Your task to perform on an android device: toggle improve location accuracy Image 0: 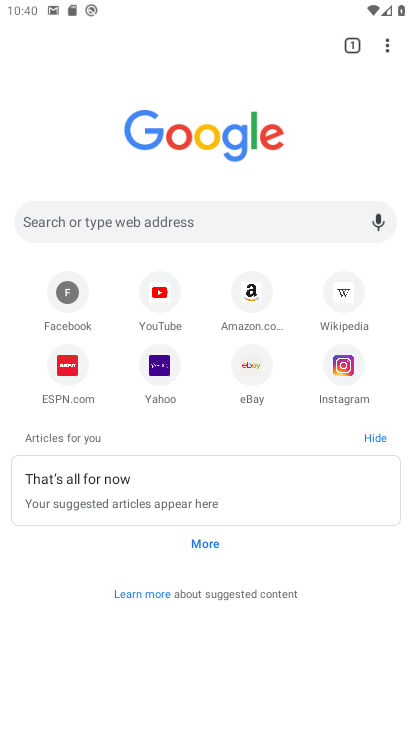
Step 0: press home button
Your task to perform on an android device: toggle improve location accuracy Image 1: 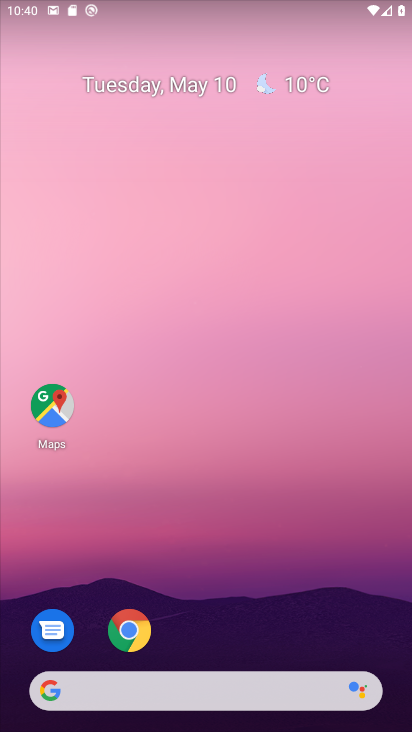
Step 1: drag from (236, 591) to (268, 112)
Your task to perform on an android device: toggle improve location accuracy Image 2: 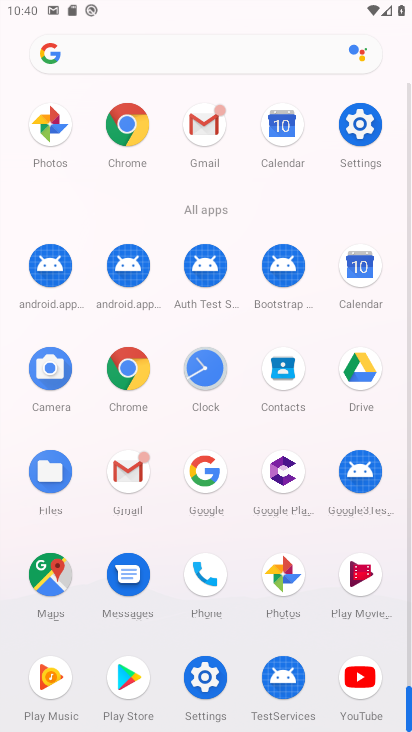
Step 2: click (362, 129)
Your task to perform on an android device: toggle improve location accuracy Image 3: 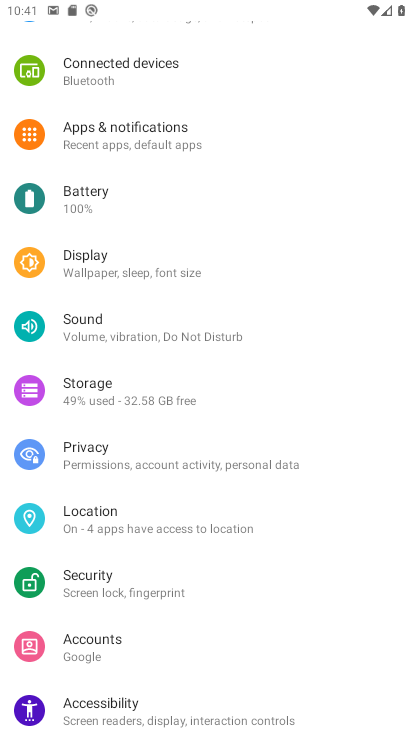
Step 3: click (135, 529)
Your task to perform on an android device: toggle improve location accuracy Image 4: 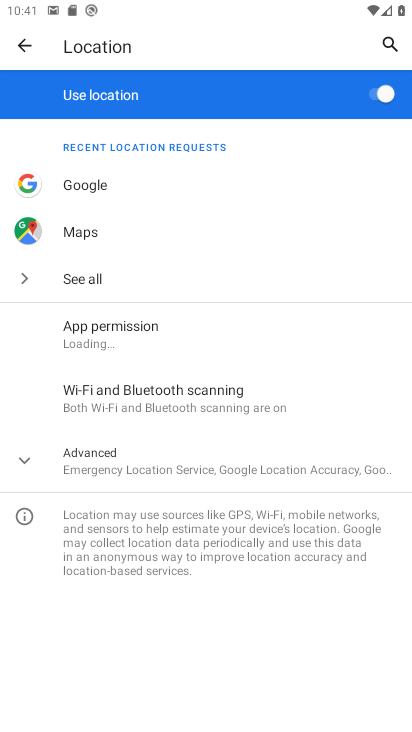
Step 4: click (139, 460)
Your task to perform on an android device: toggle improve location accuracy Image 5: 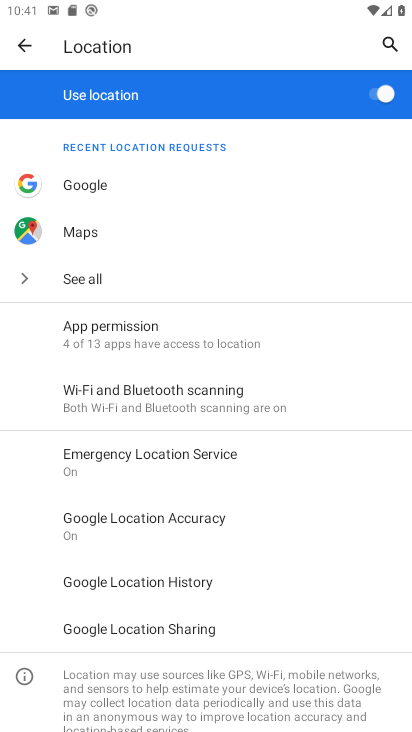
Step 5: click (182, 516)
Your task to perform on an android device: toggle improve location accuracy Image 6: 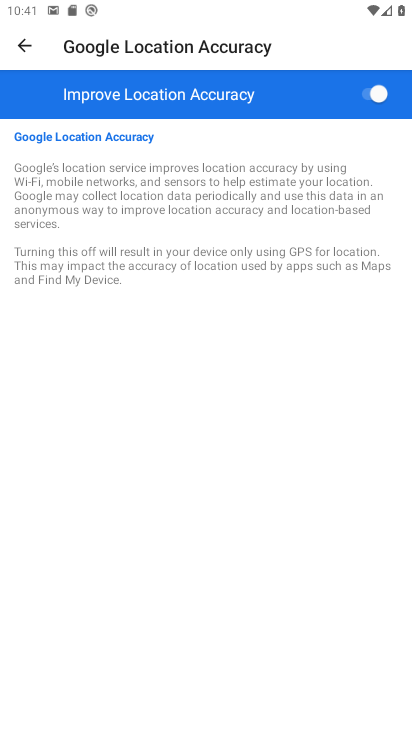
Step 6: click (371, 88)
Your task to perform on an android device: toggle improve location accuracy Image 7: 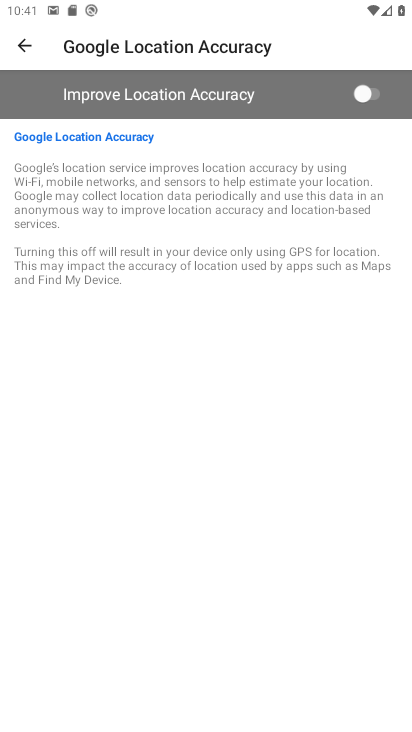
Step 7: task complete